Your task to perform on an android device: change notification settings in the gmail app Image 0: 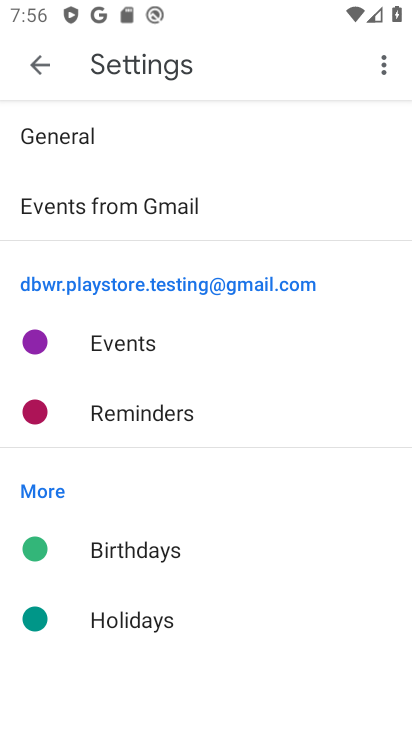
Step 0: press back button
Your task to perform on an android device: change notification settings in the gmail app Image 1: 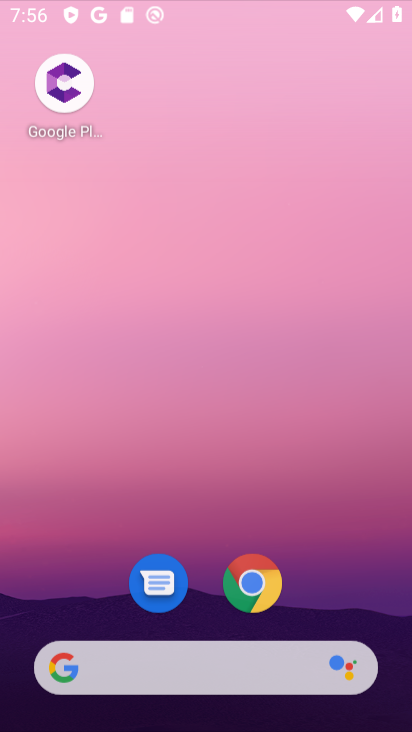
Step 1: press back button
Your task to perform on an android device: change notification settings in the gmail app Image 2: 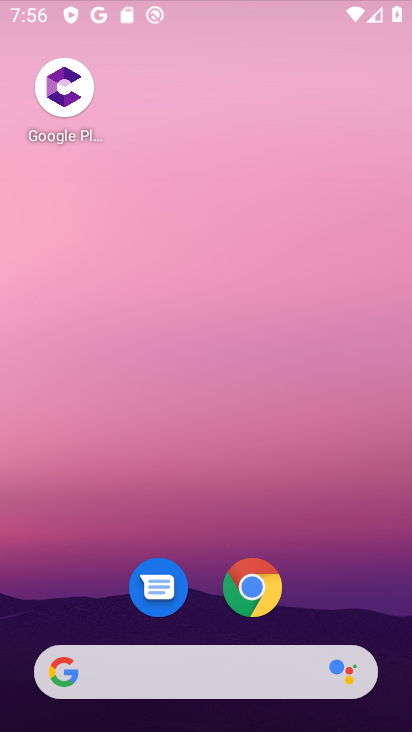
Step 2: press back button
Your task to perform on an android device: change notification settings in the gmail app Image 3: 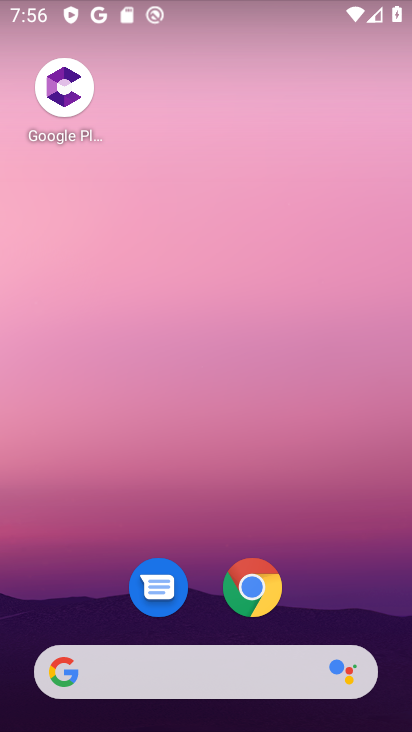
Step 3: drag from (182, 636) to (237, 29)
Your task to perform on an android device: change notification settings in the gmail app Image 4: 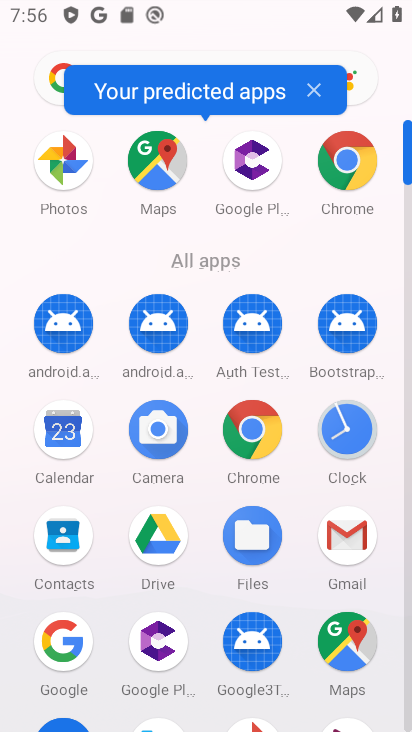
Step 4: click (339, 543)
Your task to perform on an android device: change notification settings in the gmail app Image 5: 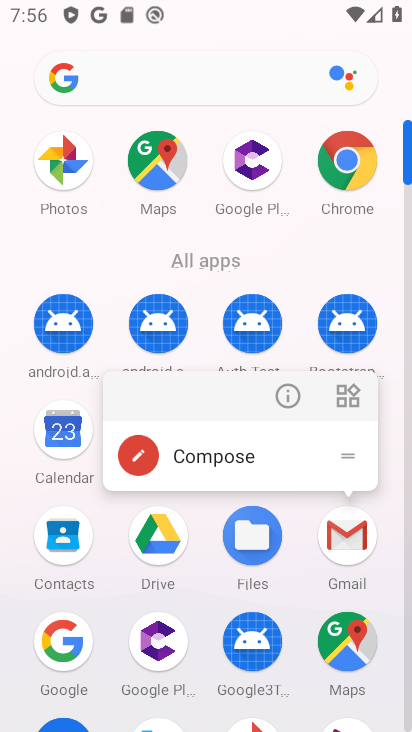
Step 5: click (291, 393)
Your task to perform on an android device: change notification settings in the gmail app Image 6: 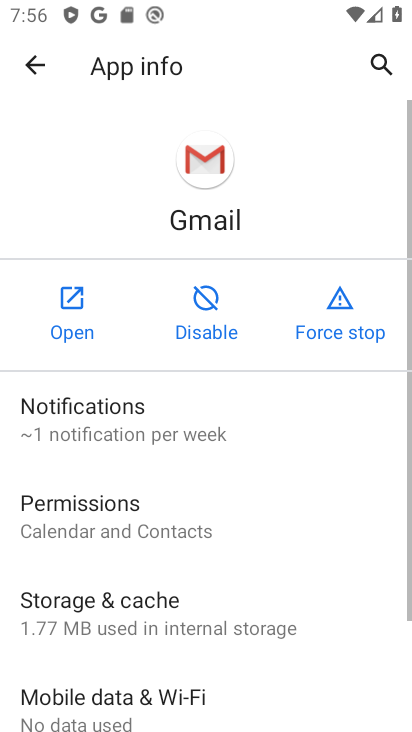
Step 6: drag from (153, 657) to (182, 424)
Your task to perform on an android device: change notification settings in the gmail app Image 7: 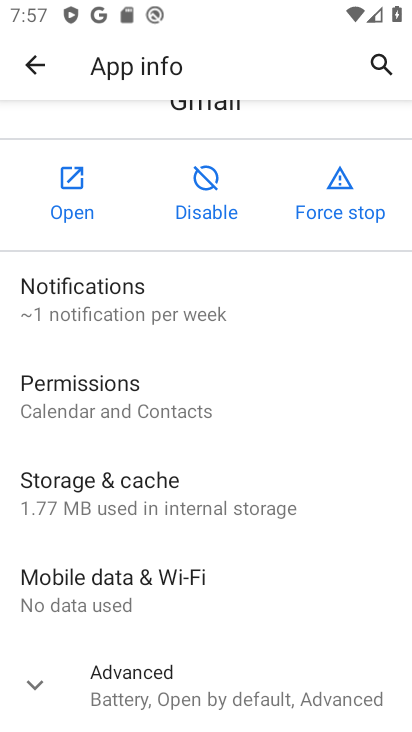
Step 7: click (153, 300)
Your task to perform on an android device: change notification settings in the gmail app Image 8: 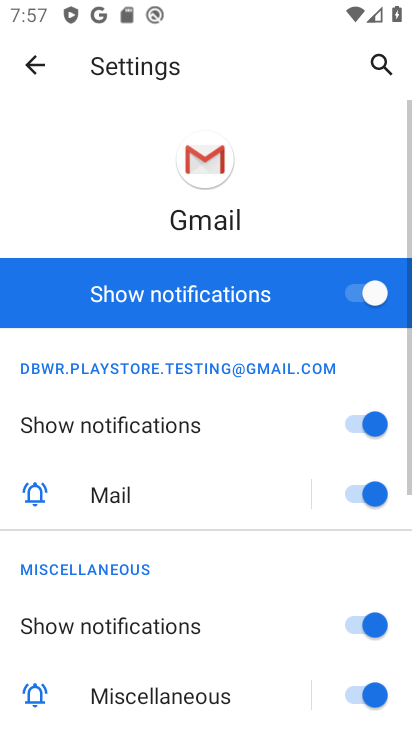
Step 8: drag from (179, 657) to (276, 76)
Your task to perform on an android device: change notification settings in the gmail app Image 9: 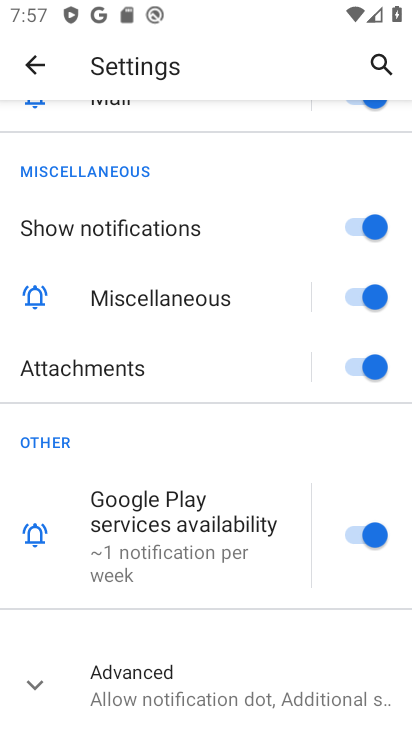
Step 9: click (366, 225)
Your task to perform on an android device: change notification settings in the gmail app Image 10: 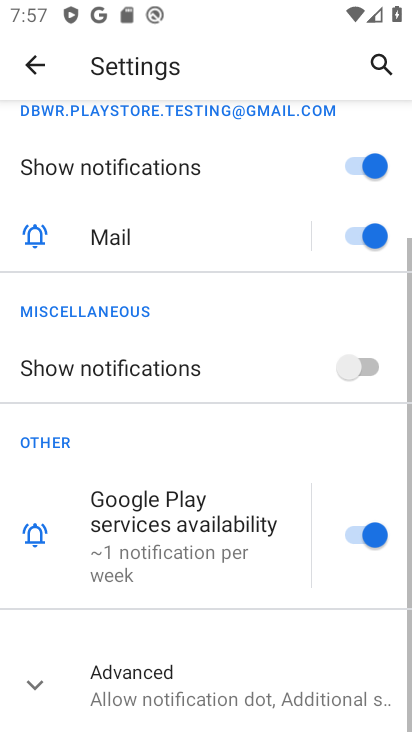
Step 10: task complete